Your task to perform on an android device: Show me popular games on the Play Store Image 0: 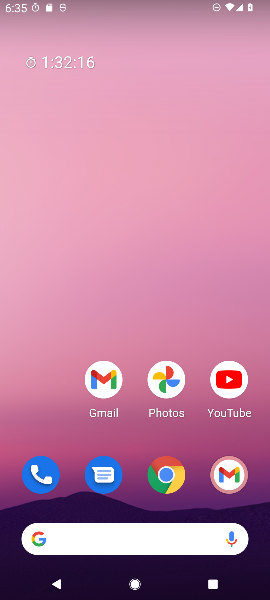
Step 0: press home button
Your task to perform on an android device: Show me popular games on the Play Store Image 1: 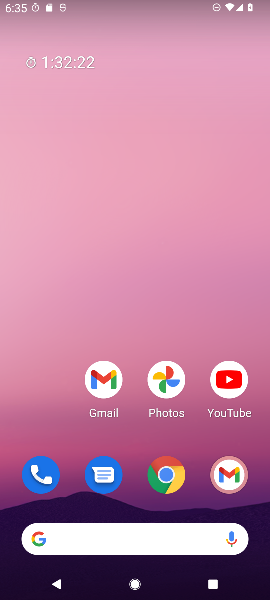
Step 1: drag from (67, 443) to (63, 199)
Your task to perform on an android device: Show me popular games on the Play Store Image 2: 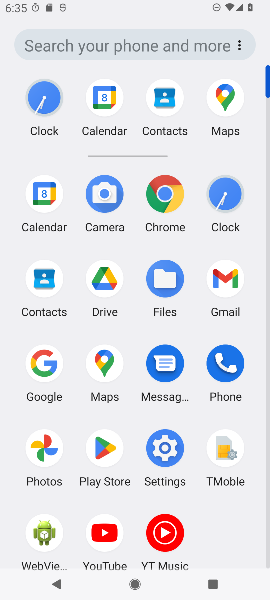
Step 2: click (107, 457)
Your task to perform on an android device: Show me popular games on the Play Store Image 3: 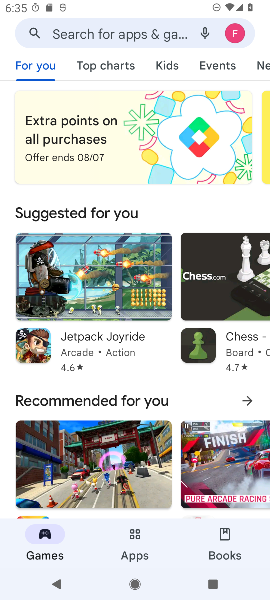
Step 3: task complete